Your task to perform on an android device: toggle sleep mode Image 0: 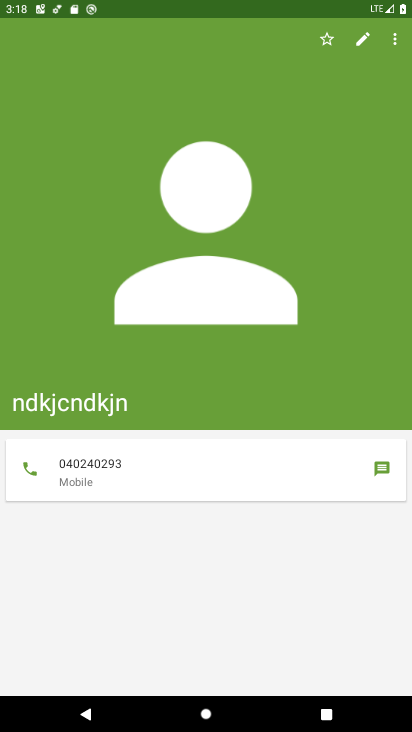
Step 0: press home button
Your task to perform on an android device: toggle sleep mode Image 1: 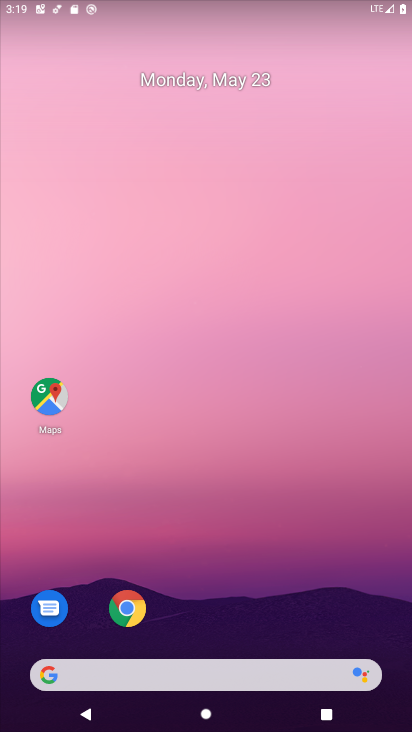
Step 1: drag from (211, 613) to (201, 4)
Your task to perform on an android device: toggle sleep mode Image 2: 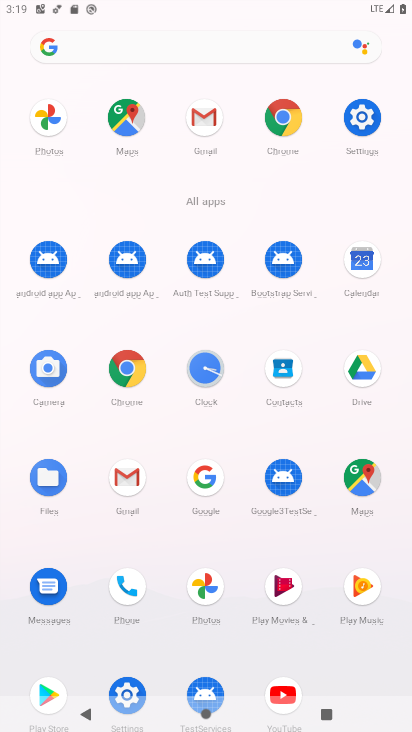
Step 2: click (361, 114)
Your task to perform on an android device: toggle sleep mode Image 3: 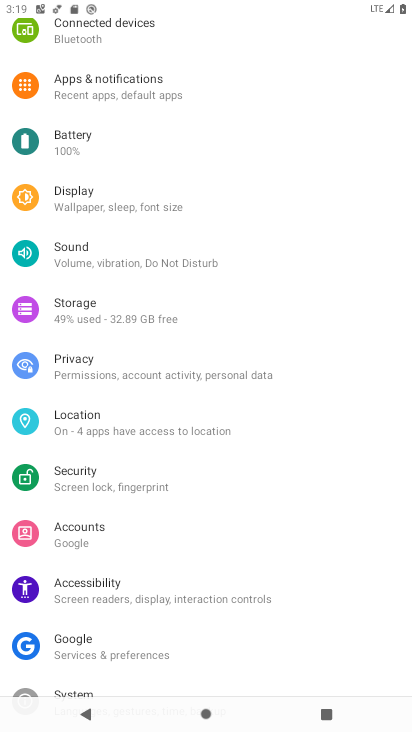
Step 3: click (141, 209)
Your task to perform on an android device: toggle sleep mode Image 4: 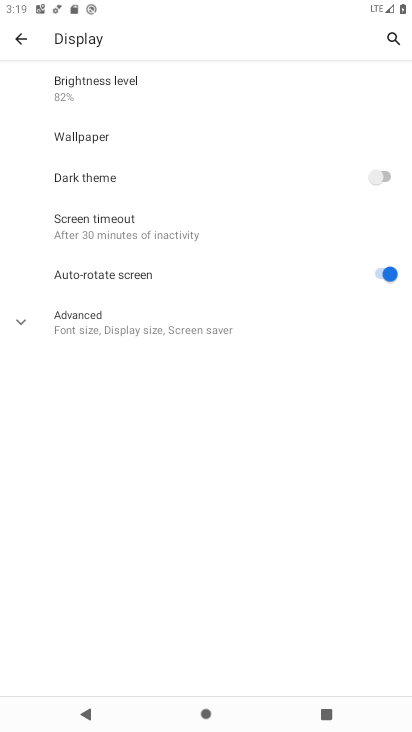
Step 4: click (184, 318)
Your task to perform on an android device: toggle sleep mode Image 5: 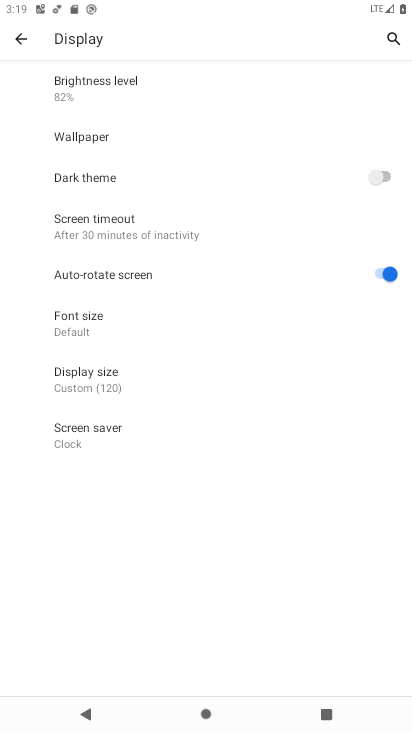
Step 5: task complete